Your task to perform on an android device: Go to Google maps Image 0: 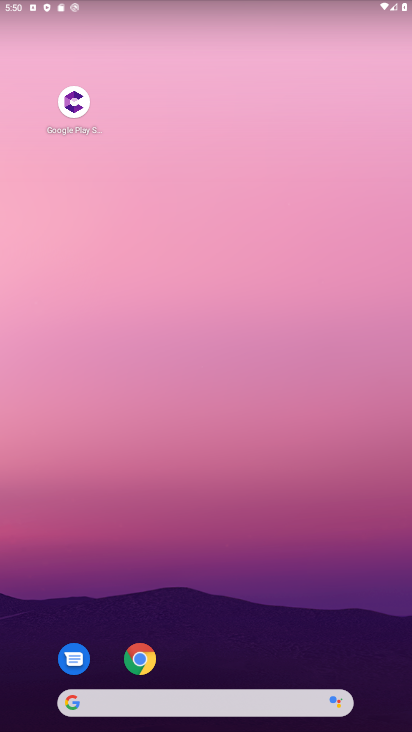
Step 0: drag from (322, 480) to (303, 132)
Your task to perform on an android device: Go to Google maps Image 1: 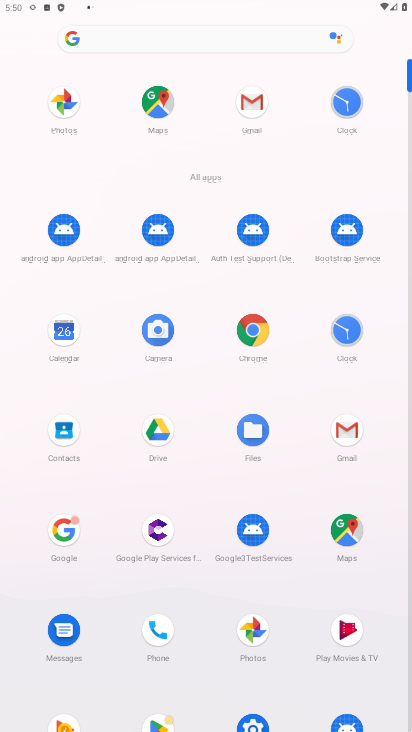
Step 1: click (174, 105)
Your task to perform on an android device: Go to Google maps Image 2: 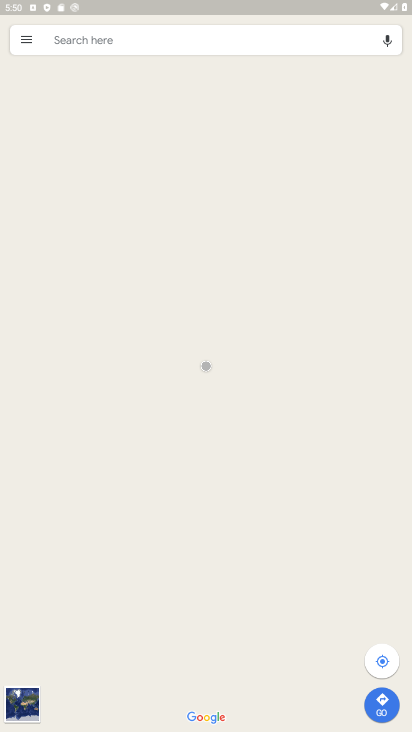
Step 2: task complete